Your task to perform on an android device: open app "Google Docs" Image 0: 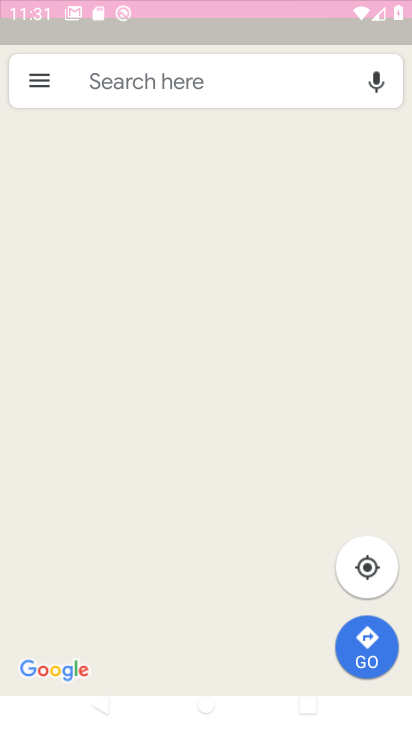
Step 0: click (289, 147)
Your task to perform on an android device: open app "Google Docs" Image 1: 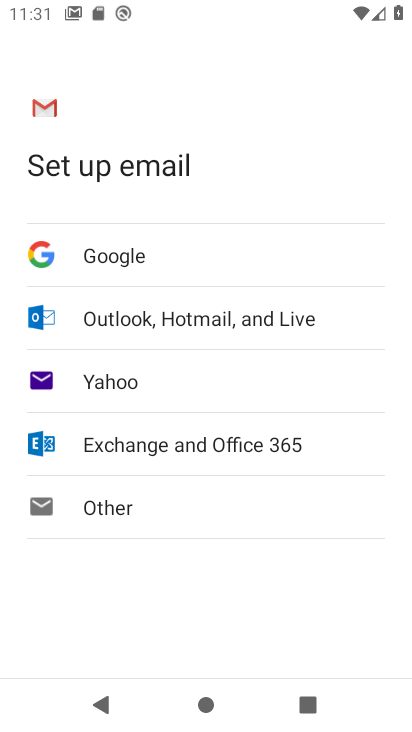
Step 1: press home button
Your task to perform on an android device: open app "Google Docs" Image 2: 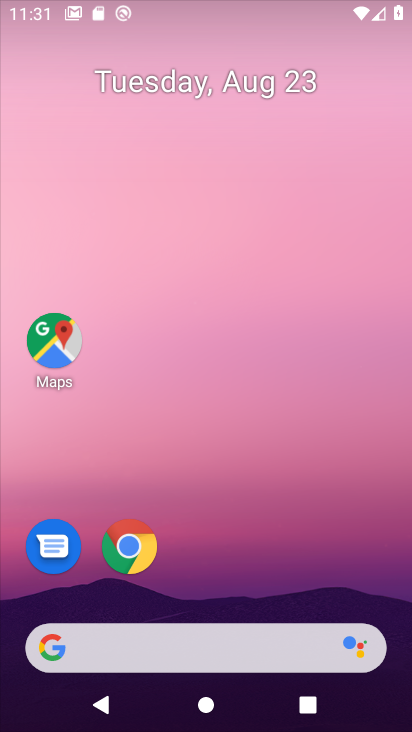
Step 2: drag from (208, 602) to (238, 118)
Your task to perform on an android device: open app "Google Docs" Image 3: 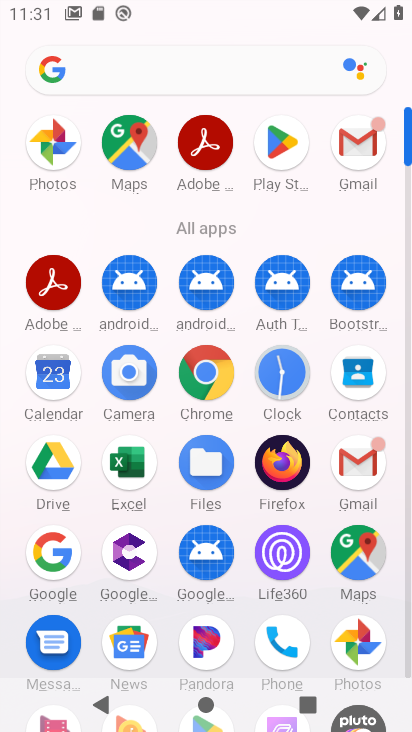
Step 3: click (283, 140)
Your task to perform on an android device: open app "Google Docs" Image 4: 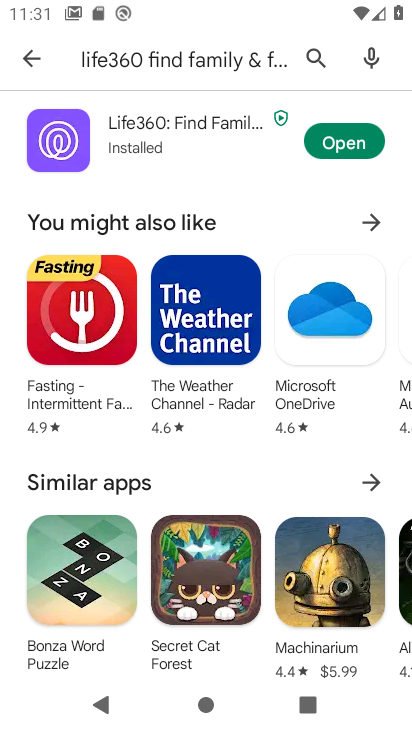
Step 4: click (39, 45)
Your task to perform on an android device: open app "Google Docs" Image 5: 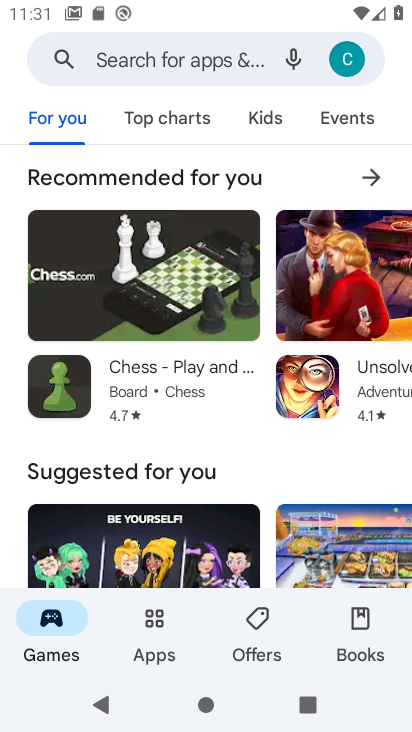
Step 5: click (104, 52)
Your task to perform on an android device: open app "Google Docs" Image 6: 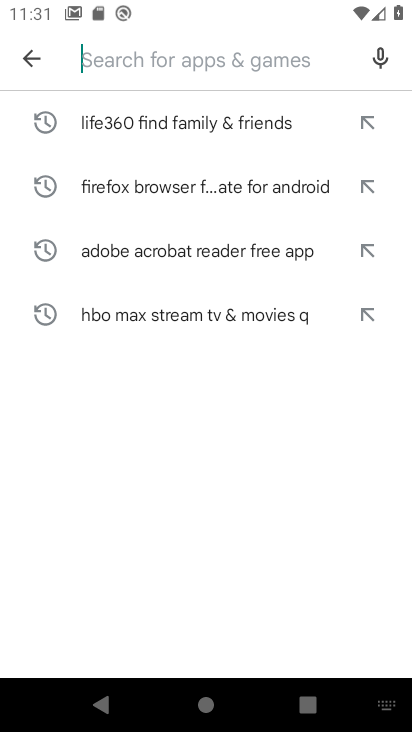
Step 6: type "Google Docs "
Your task to perform on an android device: open app "Google Docs" Image 7: 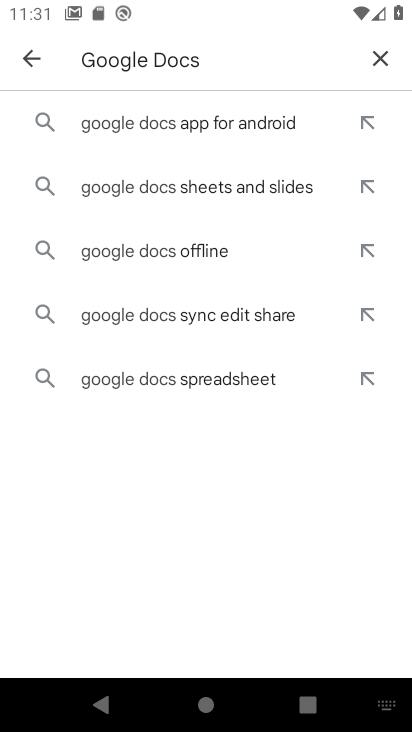
Step 7: click (204, 116)
Your task to perform on an android device: open app "Google Docs" Image 8: 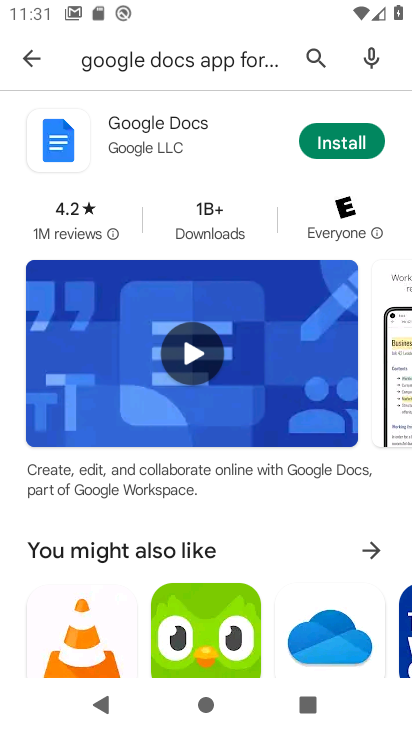
Step 8: click (336, 134)
Your task to perform on an android device: open app "Google Docs" Image 9: 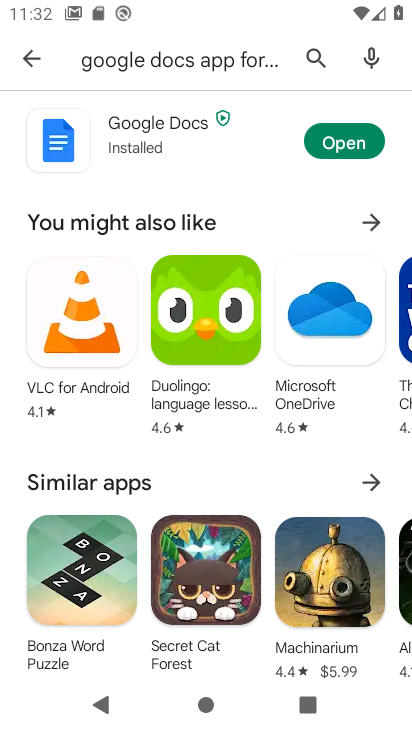
Step 9: task complete